Your task to perform on an android device: turn off notifications in google photos Image 0: 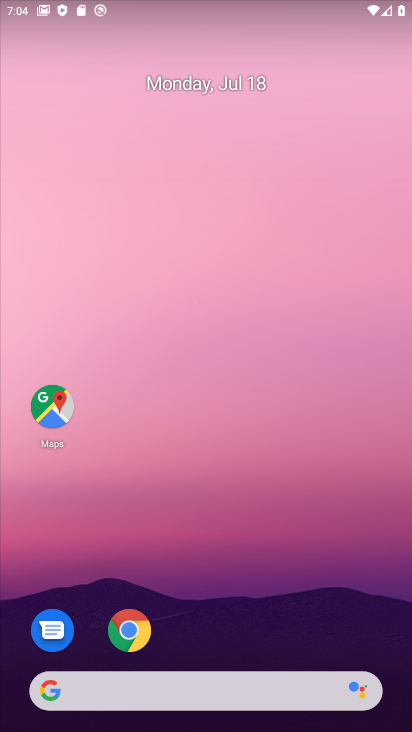
Step 0: drag from (240, 280) to (8, 194)
Your task to perform on an android device: turn off notifications in google photos Image 1: 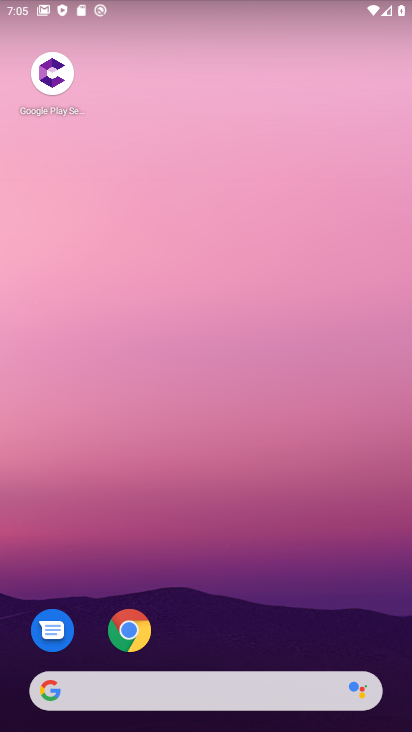
Step 1: drag from (270, 578) to (92, 11)
Your task to perform on an android device: turn off notifications in google photos Image 2: 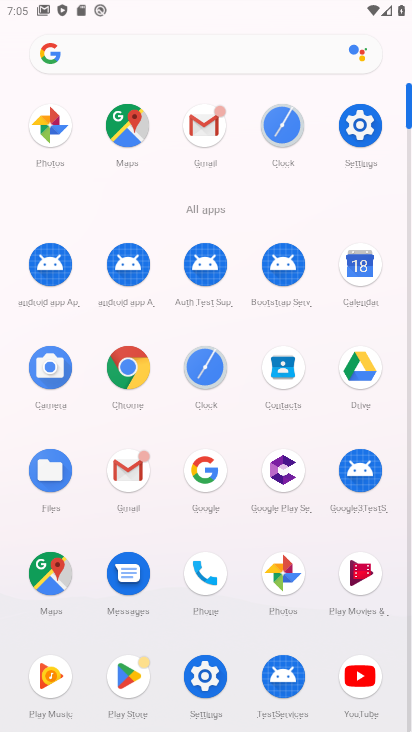
Step 2: drag from (300, 602) to (292, 127)
Your task to perform on an android device: turn off notifications in google photos Image 3: 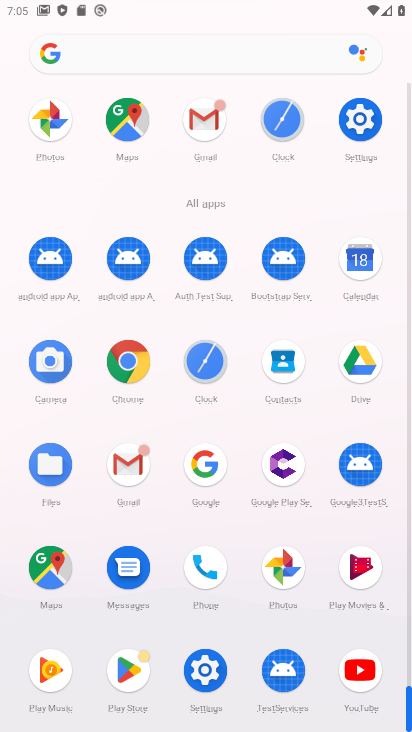
Step 3: click (285, 564)
Your task to perform on an android device: turn off notifications in google photos Image 4: 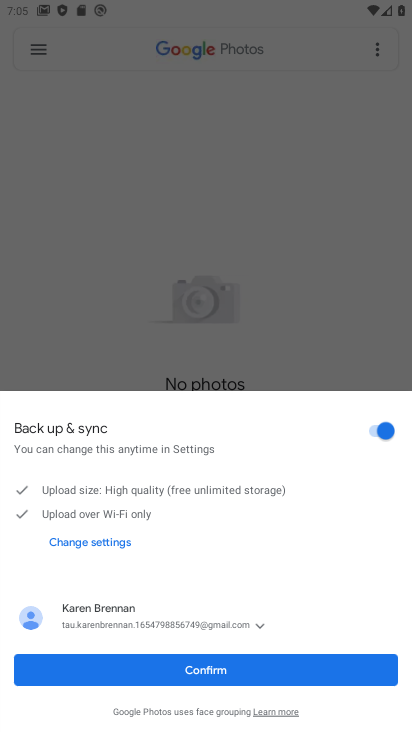
Step 4: click (244, 664)
Your task to perform on an android device: turn off notifications in google photos Image 5: 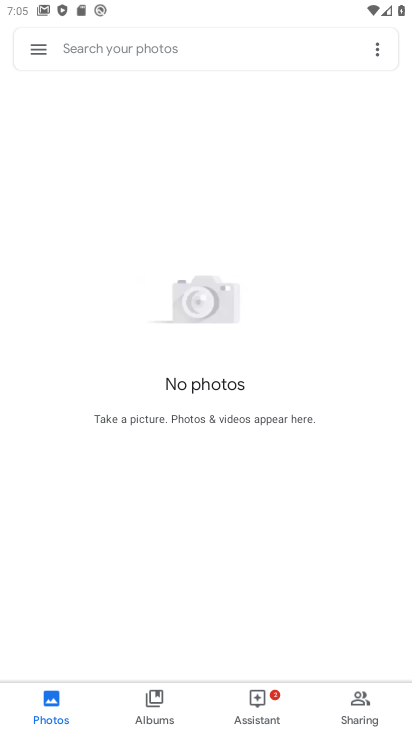
Step 5: click (40, 38)
Your task to perform on an android device: turn off notifications in google photos Image 6: 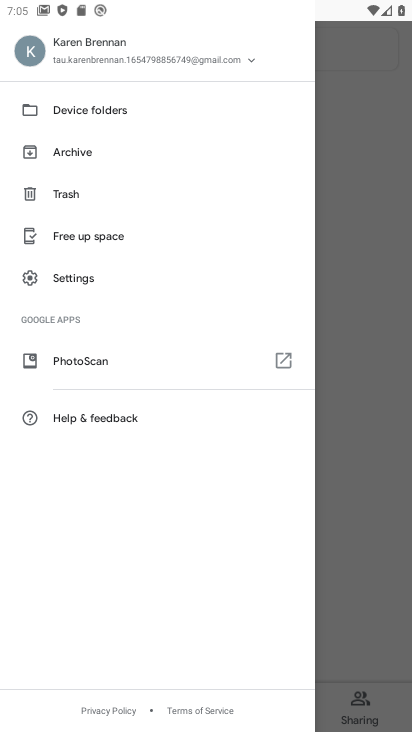
Step 6: click (57, 283)
Your task to perform on an android device: turn off notifications in google photos Image 7: 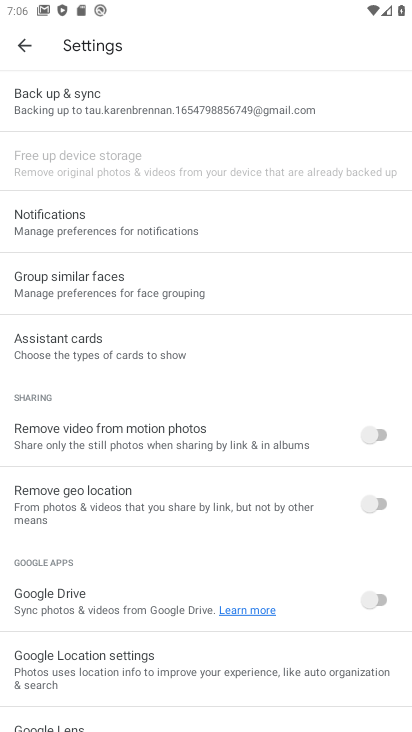
Step 7: click (99, 231)
Your task to perform on an android device: turn off notifications in google photos Image 8: 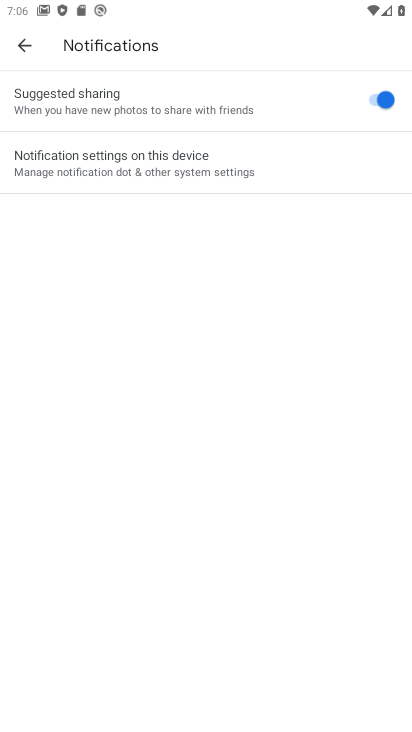
Step 8: click (89, 177)
Your task to perform on an android device: turn off notifications in google photos Image 9: 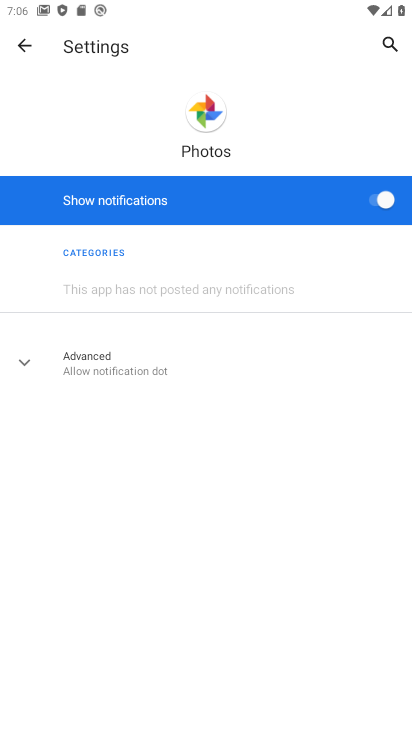
Step 9: click (386, 207)
Your task to perform on an android device: turn off notifications in google photos Image 10: 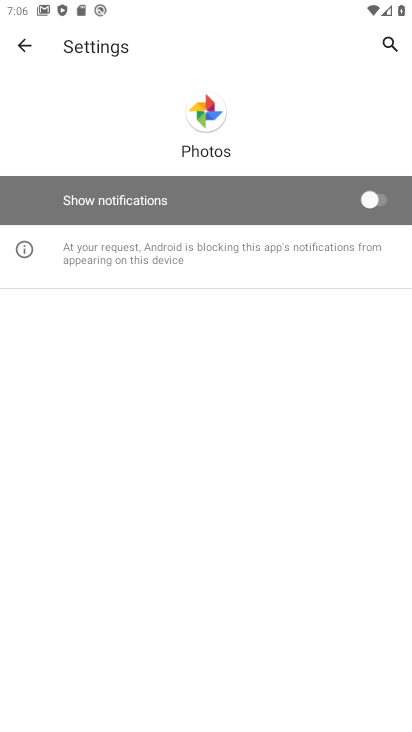
Step 10: task complete